Your task to perform on an android device: uninstall "Etsy: Buy & Sell Unique Items" Image 0: 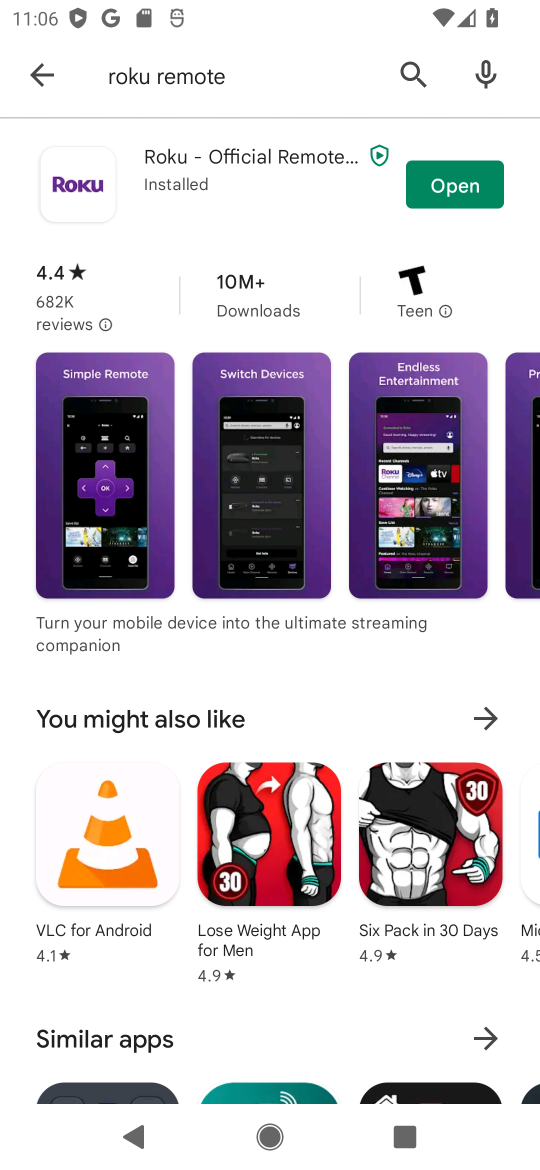
Step 0: click (410, 65)
Your task to perform on an android device: uninstall "Etsy: Buy & Sell Unique Items" Image 1: 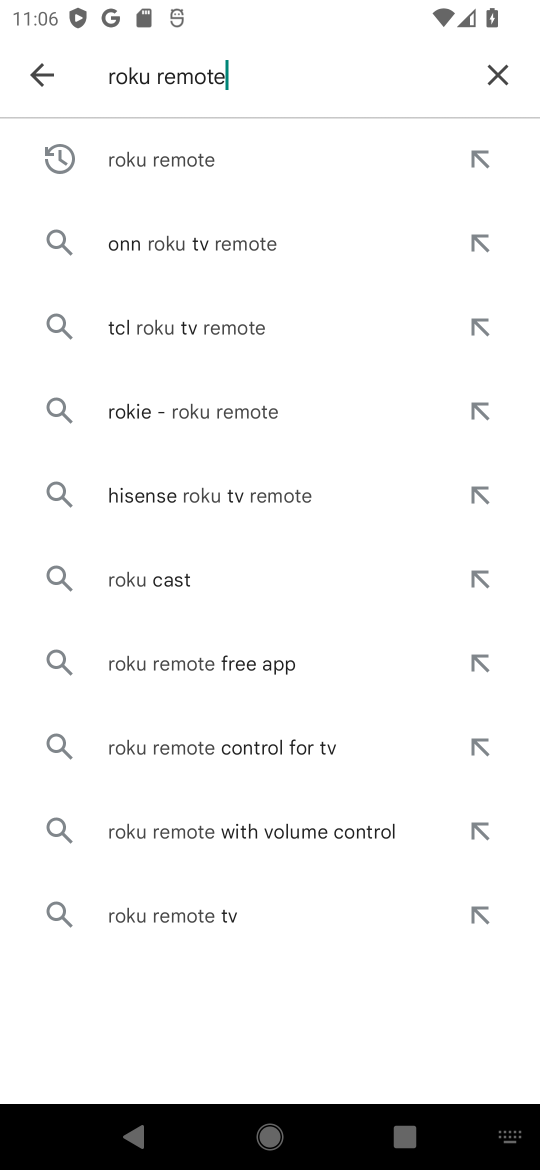
Step 1: click (494, 67)
Your task to perform on an android device: uninstall "Etsy: Buy & Sell Unique Items" Image 2: 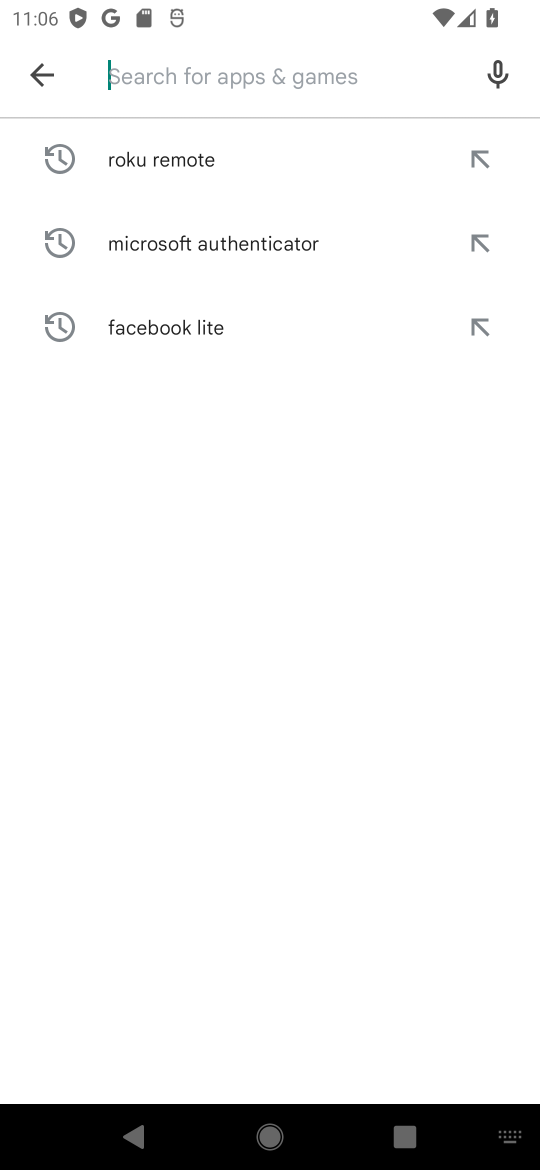
Step 2: click (119, 66)
Your task to perform on an android device: uninstall "Etsy: Buy & Sell Unique Items" Image 3: 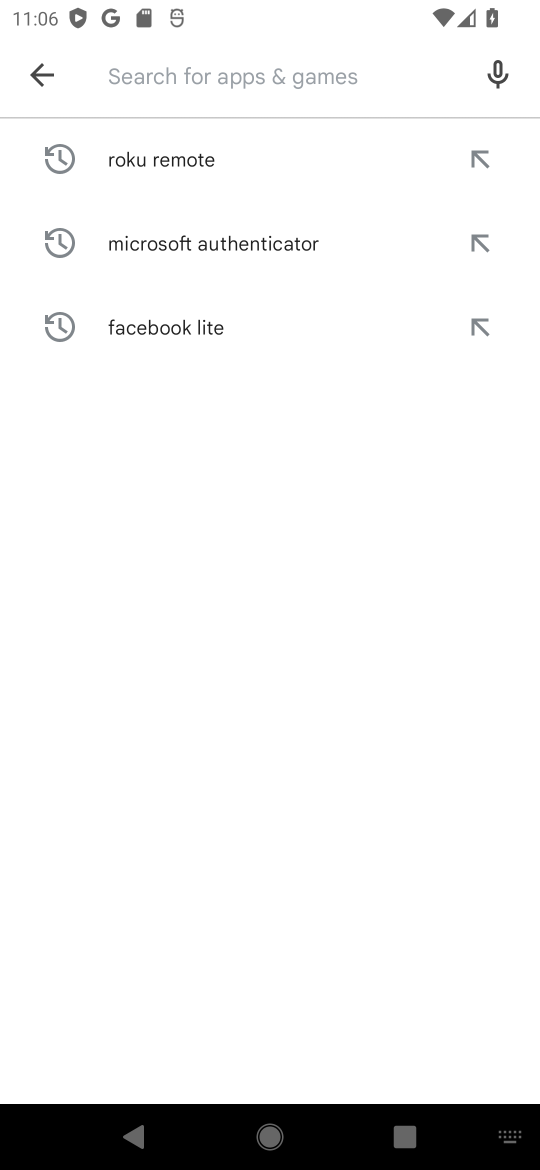
Step 3: type "Etsy"
Your task to perform on an android device: uninstall "Etsy: Buy & Sell Unique Items" Image 4: 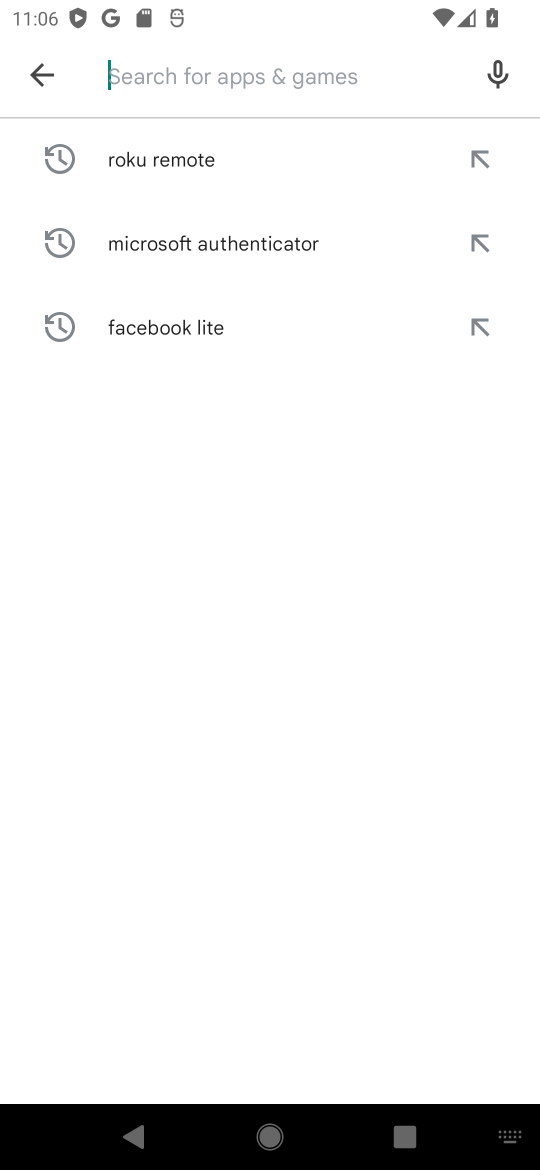
Step 4: click (258, 661)
Your task to perform on an android device: uninstall "Etsy: Buy & Sell Unique Items" Image 5: 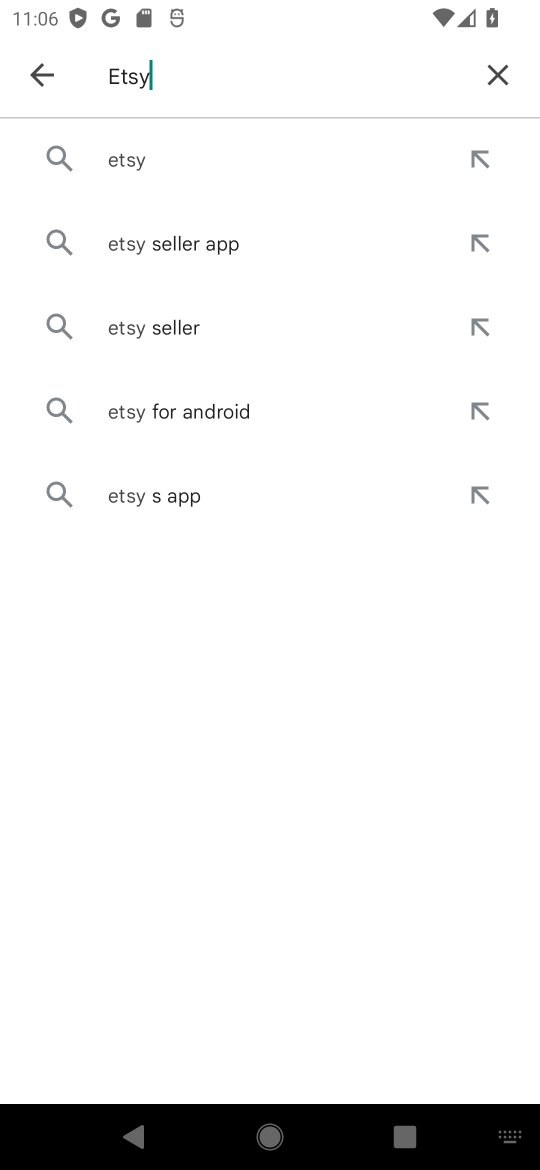
Step 5: click (98, 152)
Your task to perform on an android device: uninstall "Etsy: Buy & Sell Unique Items" Image 6: 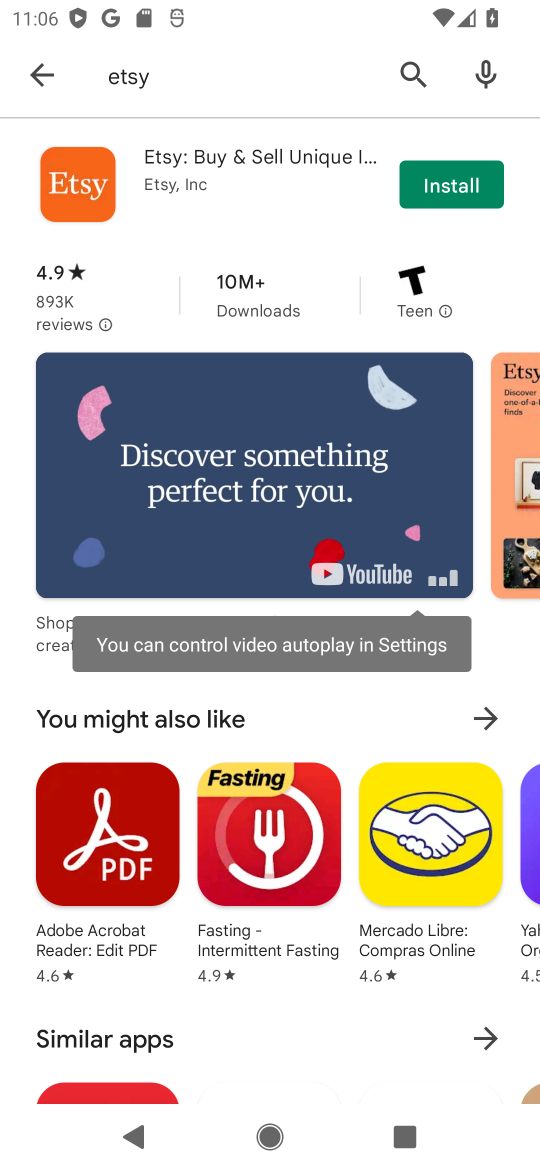
Step 6: task complete